Your task to perform on an android device: Open Google Image 0: 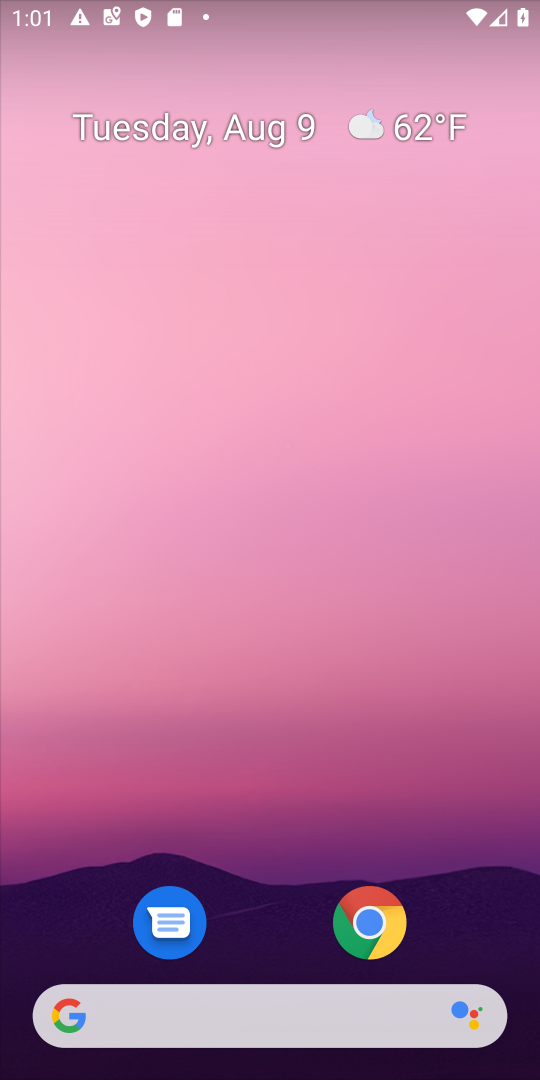
Step 0: click (132, 1001)
Your task to perform on an android device: Open Google Image 1: 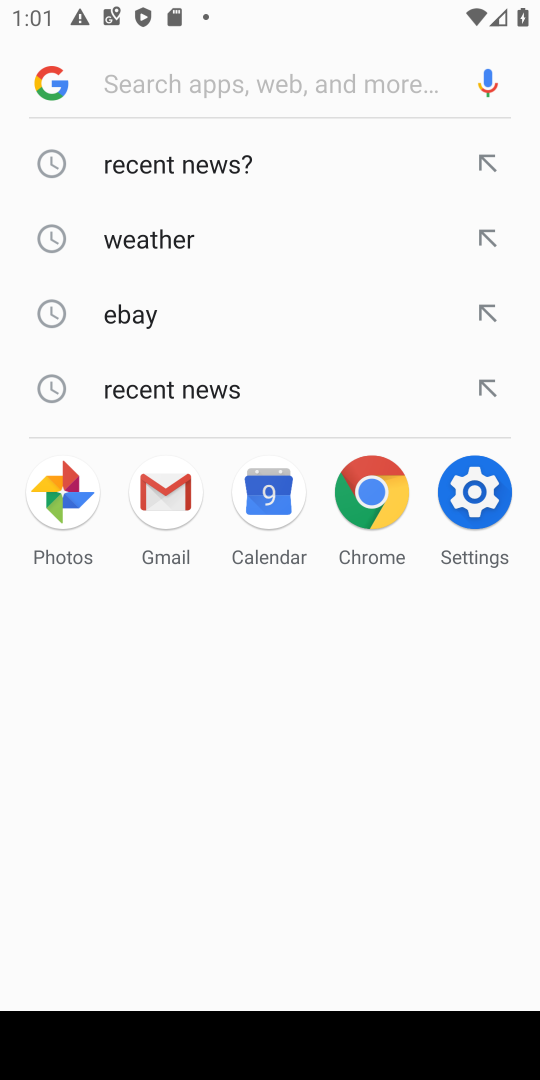
Step 1: task complete